Your task to perform on an android device: turn on javascript in the chrome app Image 0: 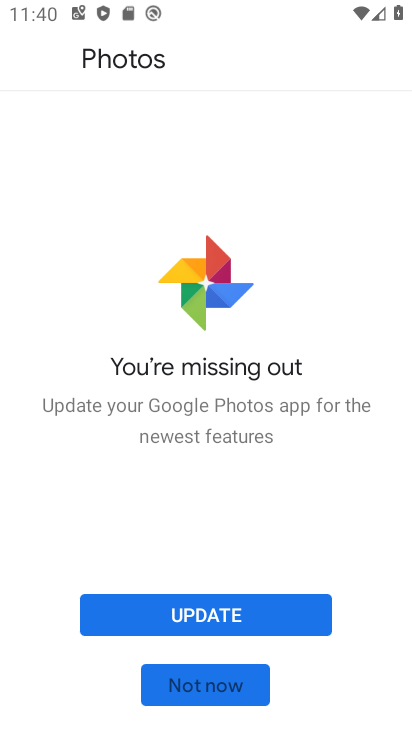
Step 0: press home button
Your task to perform on an android device: turn on javascript in the chrome app Image 1: 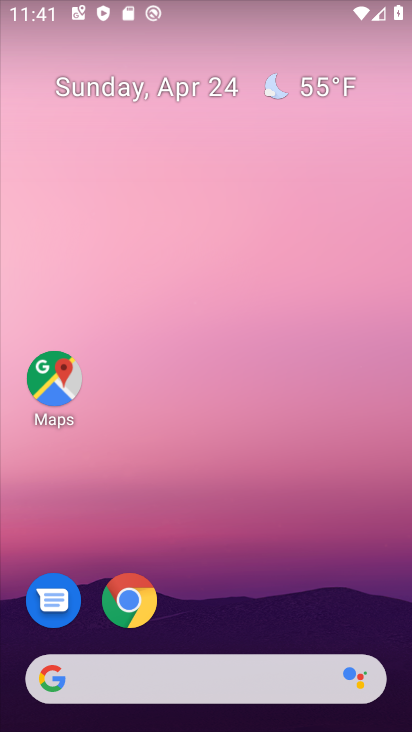
Step 1: click (131, 594)
Your task to perform on an android device: turn on javascript in the chrome app Image 2: 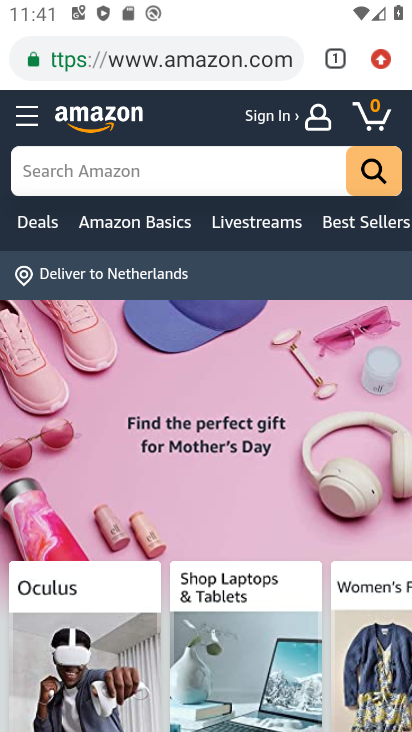
Step 2: click (377, 60)
Your task to perform on an android device: turn on javascript in the chrome app Image 3: 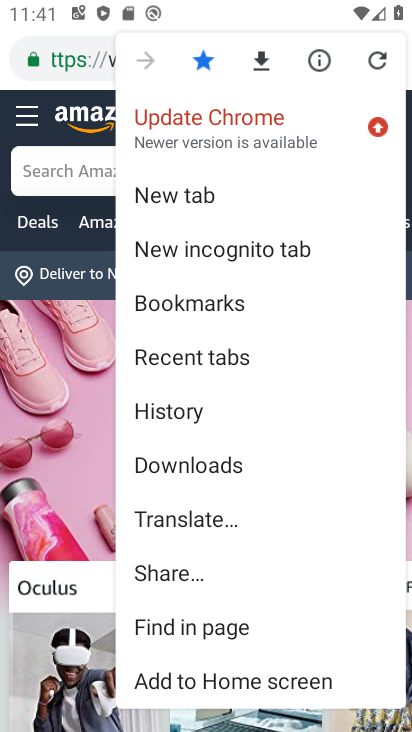
Step 3: drag from (205, 635) to (188, 315)
Your task to perform on an android device: turn on javascript in the chrome app Image 4: 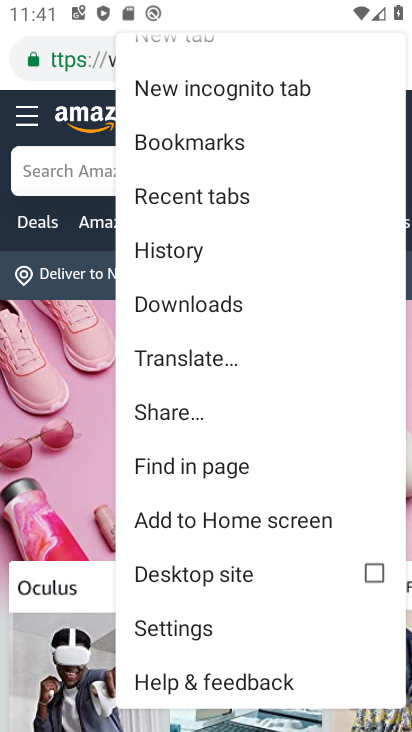
Step 4: click (207, 643)
Your task to perform on an android device: turn on javascript in the chrome app Image 5: 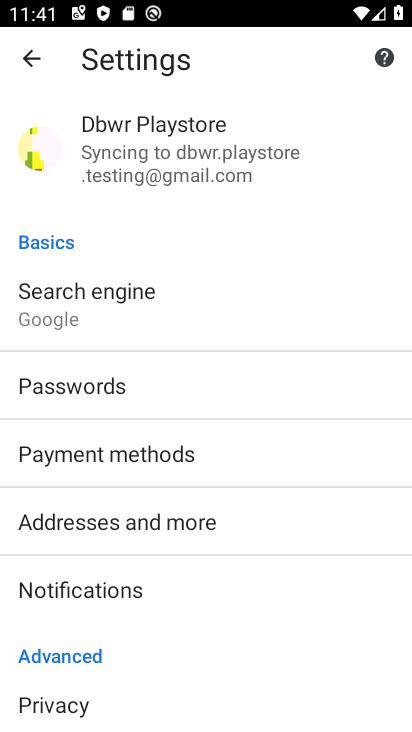
Step 5: drag from (148, 668) to (155, 299)
Your task to perform on an android device: turn on javascript in the chrome app Image 6: 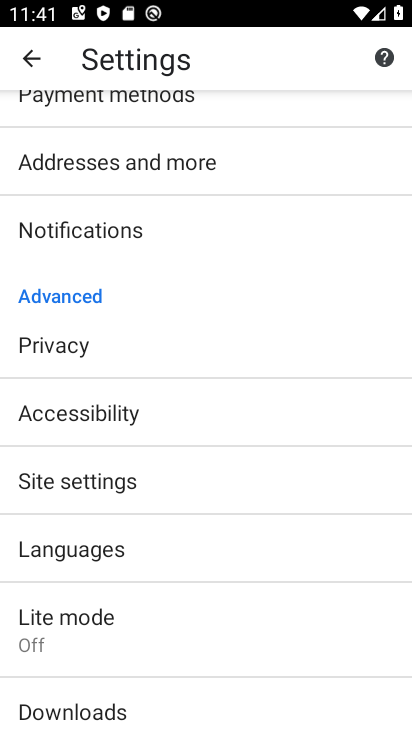
Step 6: drag from (39, 665) to (149, 160)
Your task to perform on an android device: turn on javascript in the chrome app Image 7: 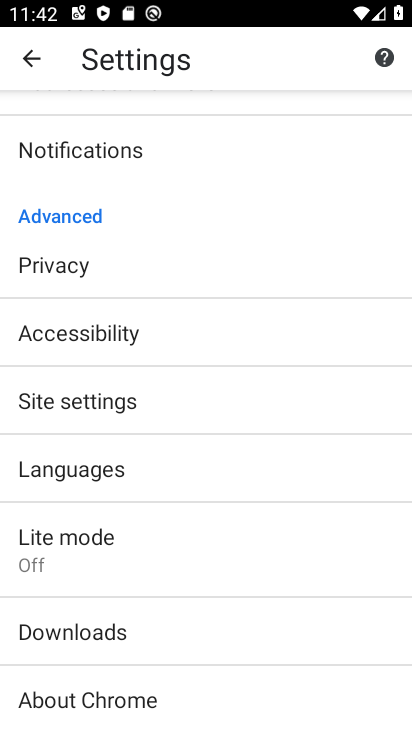
Step 7: click (134, 391)
Your task to perform on an android device: turn on javascript in the chrome app Image 8: 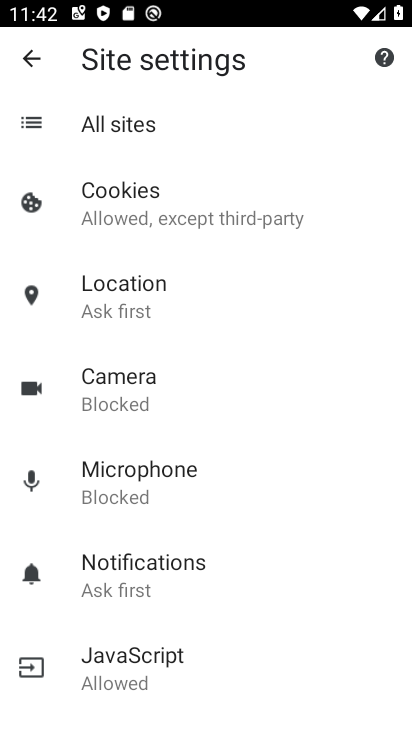
Step 8: click (155, 649)
Your task to perform on an android device: turn on javascript in the chrome app Image 9: 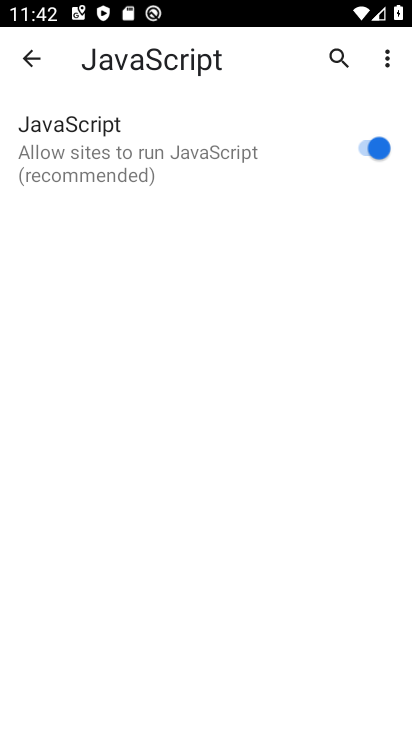
Step 9: task complete